Your task to perform on an android device: Go to accessibility settings Image 0: 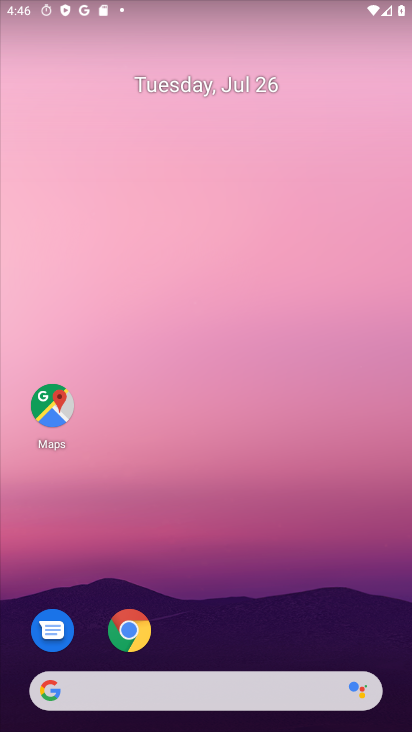
Step 0: drag from (314, 563) to (314, 103)
Your task to perform on an android device: Go to accessibility settings Image 1: 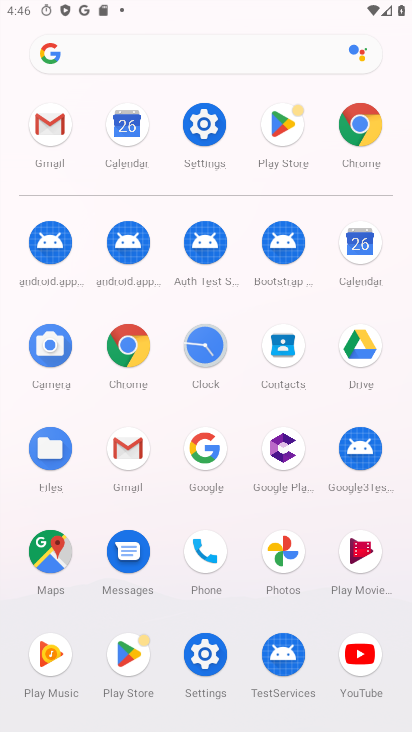
Step 1: click (207, 117)
Your task to perform on an android device: Go to accessibility settings Image 2: 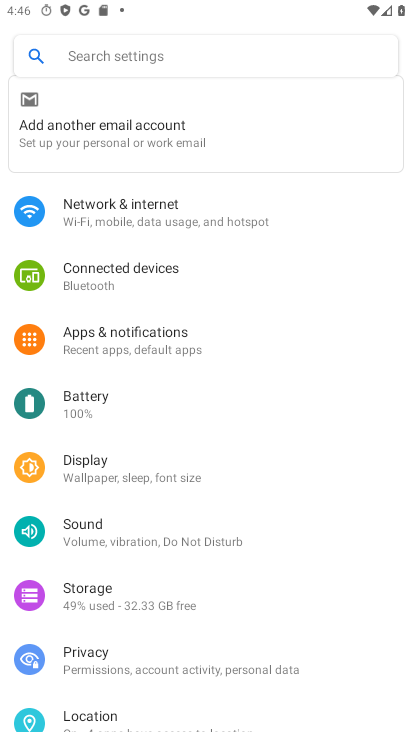
Step 2: drag from (259, 597) to (368, 169)
Your task to perform on an android device: Go to accessibility settings Image 3: 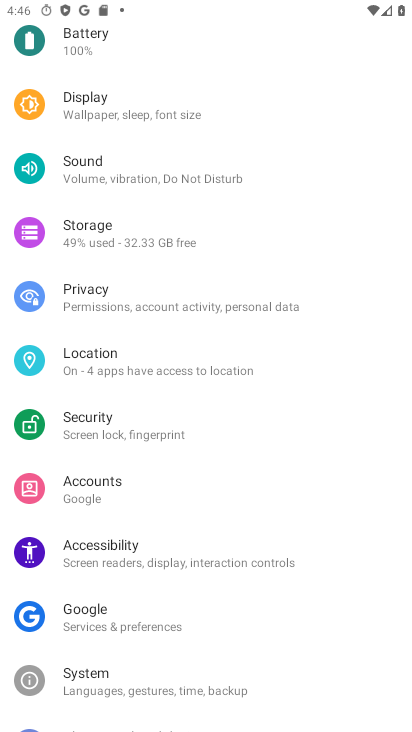
Step 3: click (182, 559)
Your task to perform on an android device: Go to accessibility settings Image 4: 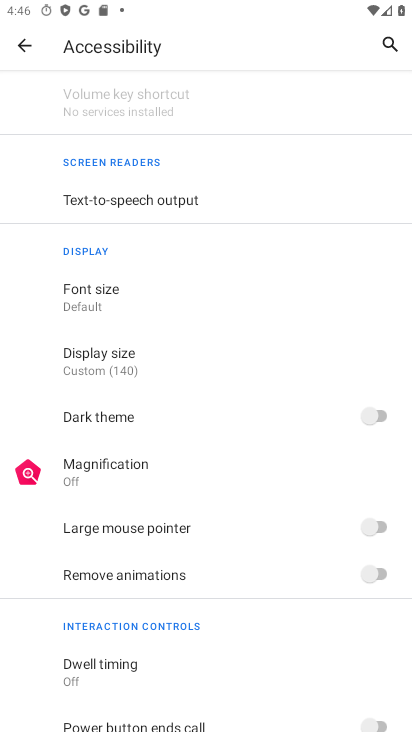
Step 4: task complete